Your task to perform on an android device: Open notification settings Image 0: 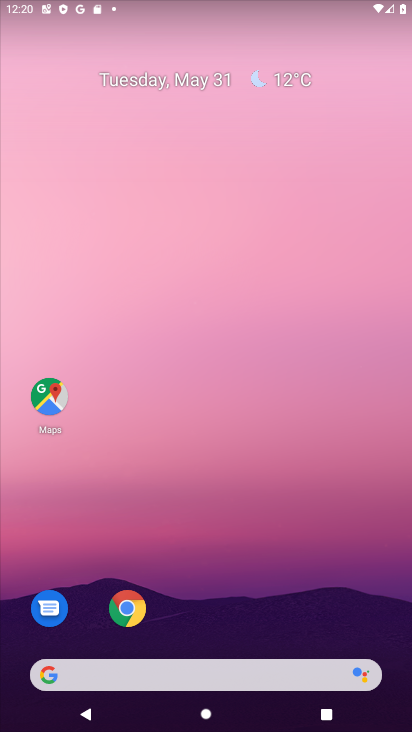
Step 0: drag from (237, 613) to (314, 5)
Your task to perform on an android device: Open notification settings Image 1: 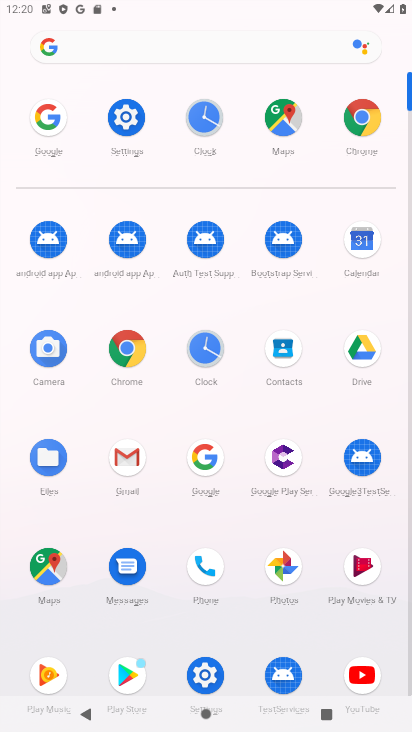
Step 1: click (120, 114)
Your task to perform on an android device: Open notification settings Image 2: 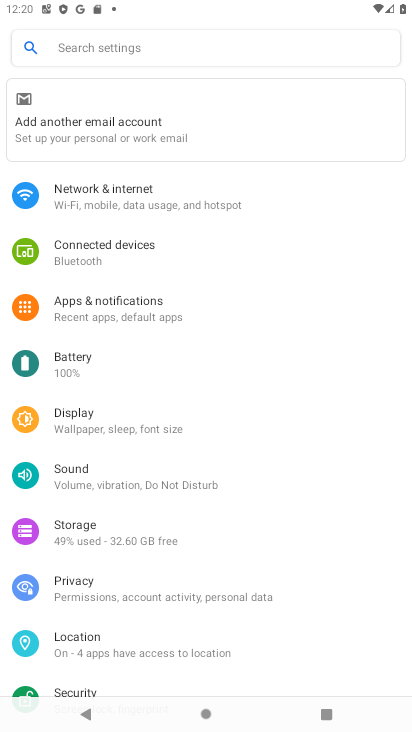
Step 2: drag from (117, 614) to (127, 365)
Your task to perform on an android device: Open notification settings Image 3: 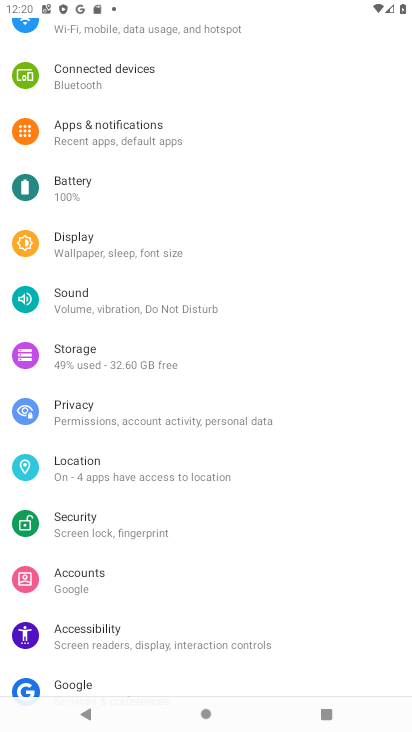
Step 3: click (111, 123)
Your task to perform on an android device: Open notification settings Image 4: 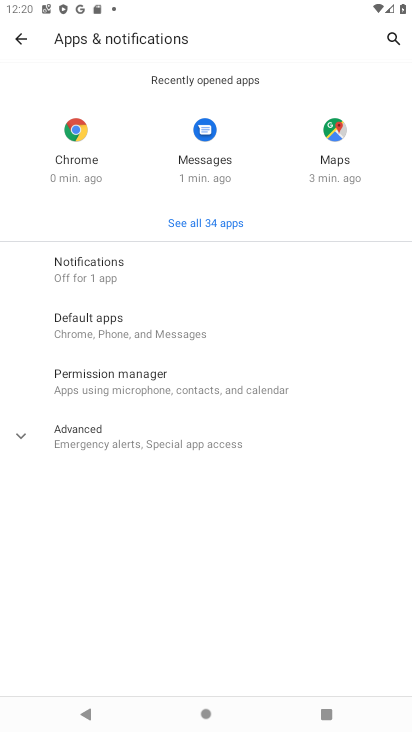
Step 4: click (109, 277)
Your task to perform on an android device: Open notification settings Image 5: 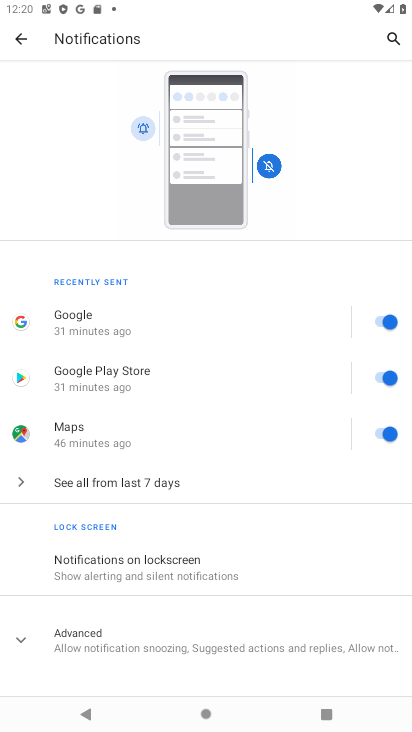
Step 5: task complete